Your task to perform on an android device: toggle show notifications on the lock screen Image 0: 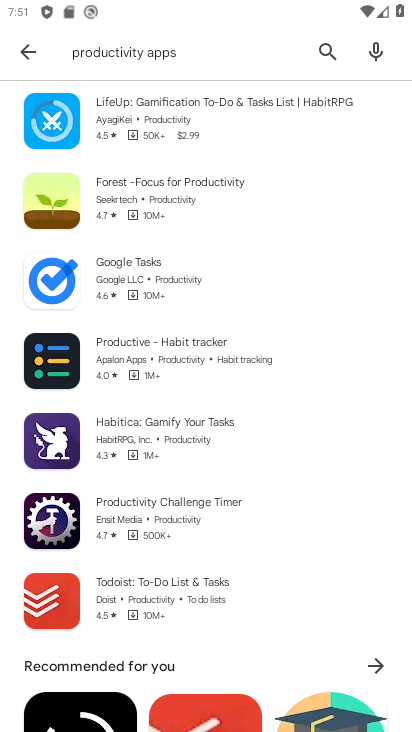
Step 0: press home button
Your task to perform on an android device: toggle show notifications on the lock screen Image 1: 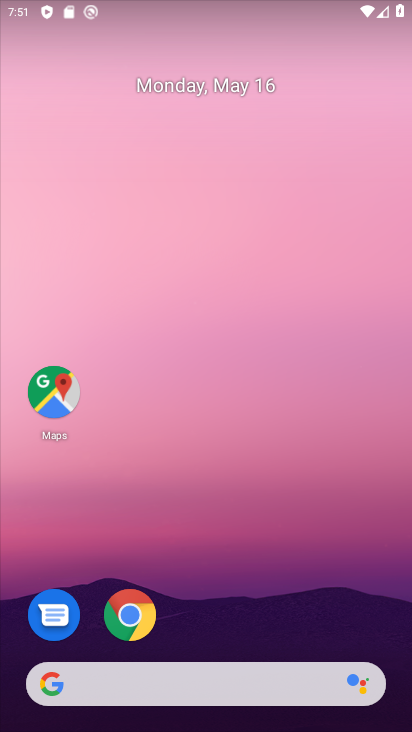
Step 1: drag from (207, 618) to (355, 161)
Your task to perform on an android device: toggle show notifications on the lock screen Image 2: 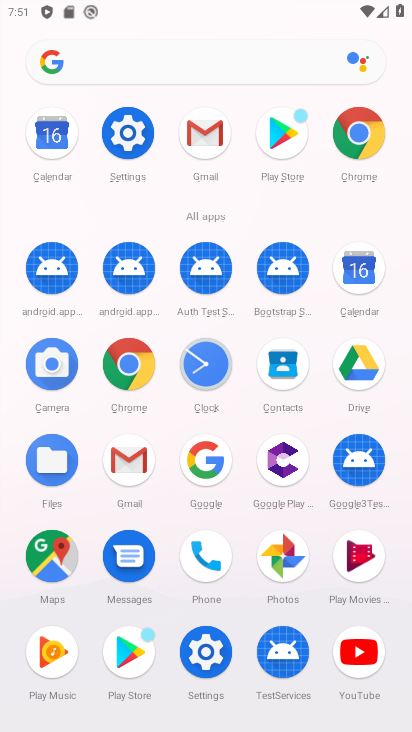
Step 2: click (118, 164)
Your task to perform on an android device: toggle show notifications on the lock screen Image 3: 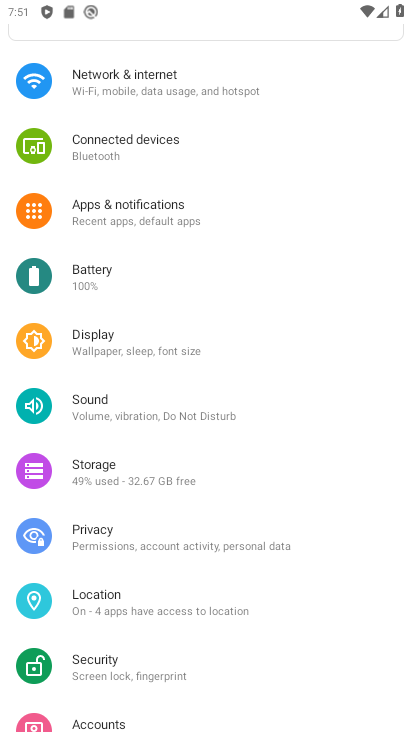
Step 3: drag from (174, 173) to (171, 527)
Your task to perform on an android device: toggle show notifications on the lock screen Image 4: 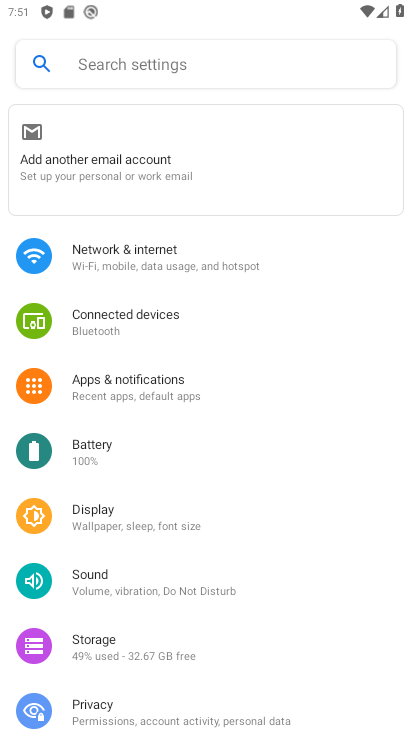
Step 4: click (230, 395)
Your task to perform on an android device: toggle show notifications on the lock screen Image 5: 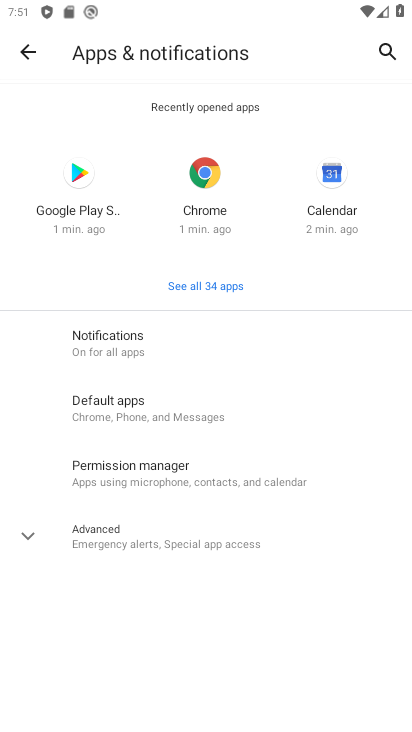
Step 5: click (208, 351)
Your task to perform on an android device: toggle show notifications on the lock screen Image 6: 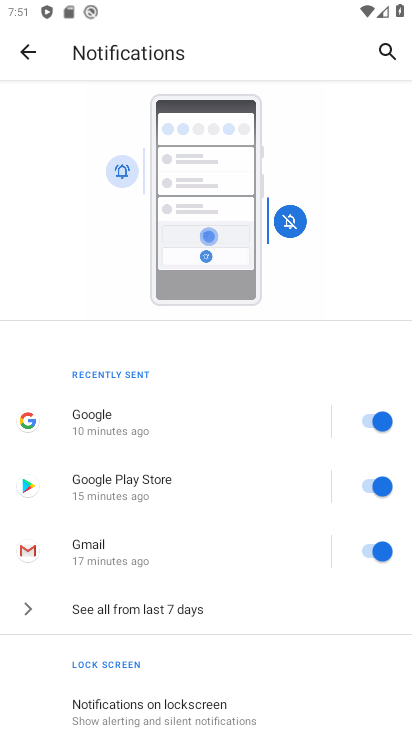
Step 6: click (186, 716)
Your task to perform on an android device: toggle show notifications on the lock screen Image 7: 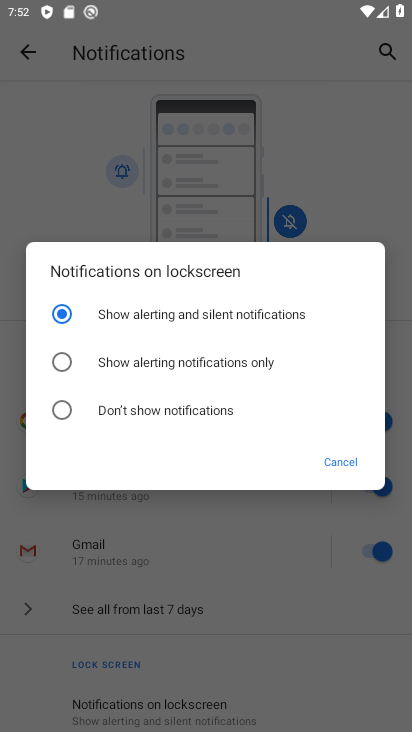
Step 7: click (93, 420)
Your task to perform on an android device: toggle show notifications on the lock screen Image 8: 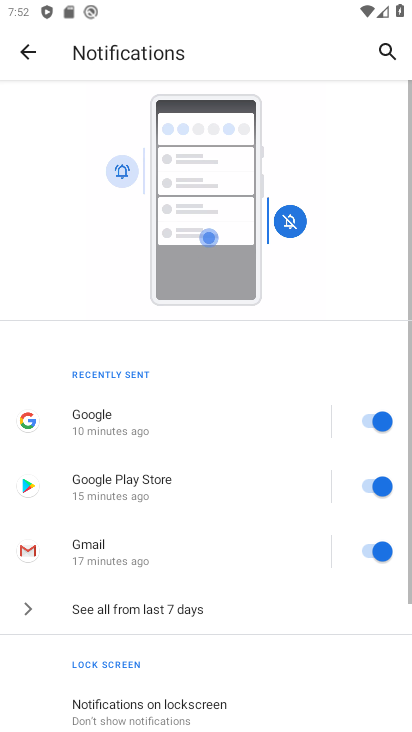
Step 8: task complete